Your task to perform on an android device: turn pop-ups off in chrome Image 0: 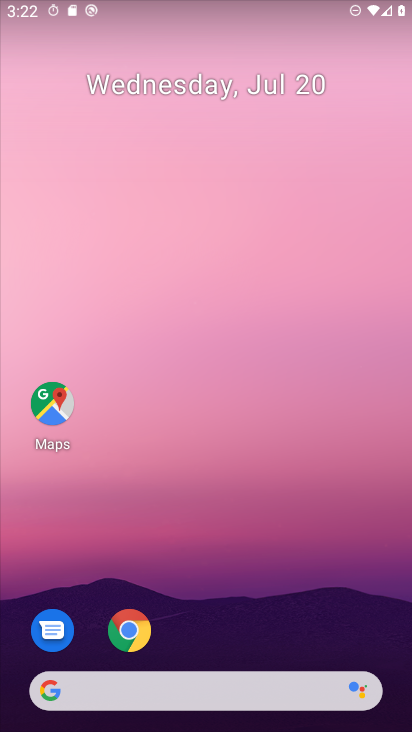
Step 0: drag from (252, 690) to (249, 252)
Your task to perform on an android device: turn pop-ups off in chrome Image 1: 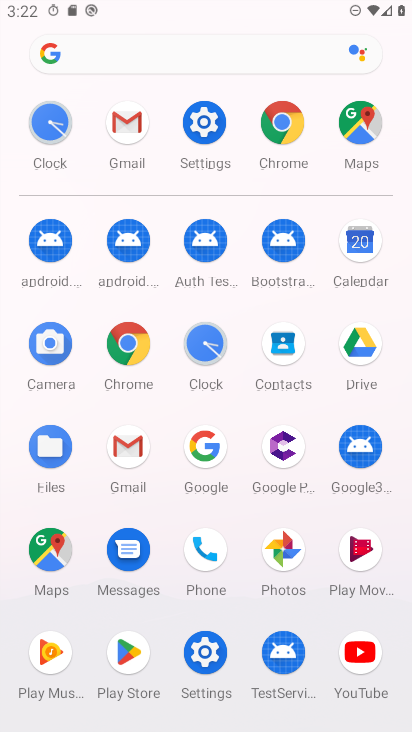
Step 1: click (299, 123)
Your task to perform on an android device: turn pop-ups off in chrome Image 2: 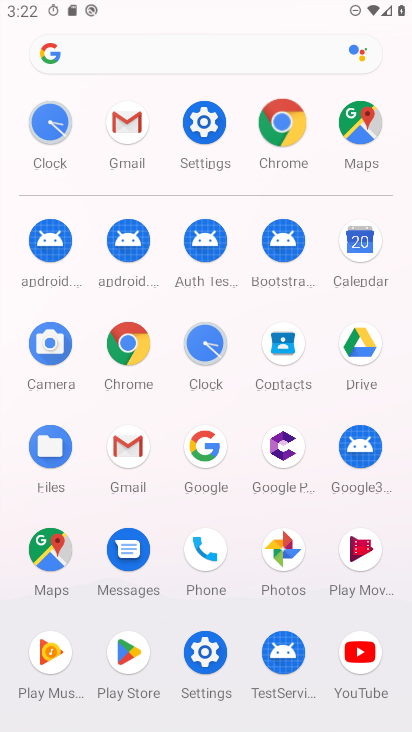
Step 2: click (290, 122)
Your task to perform on an android device: turn pop-ups off in chrome Image 3: 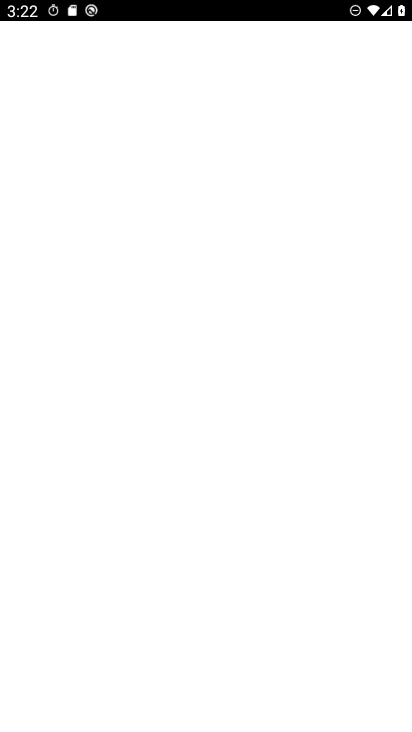
Step 3: click (290, 122)
Your task to perform on an android device: turn pop-ups off in chrome Image 4: 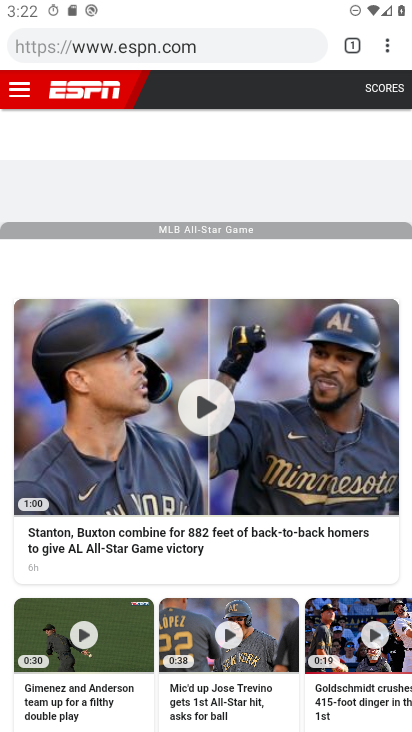
Step 4: drag from (390, 42) to (372, 140)
Your task to perform on an android device: turn pop-ups off in chrome Image 5: 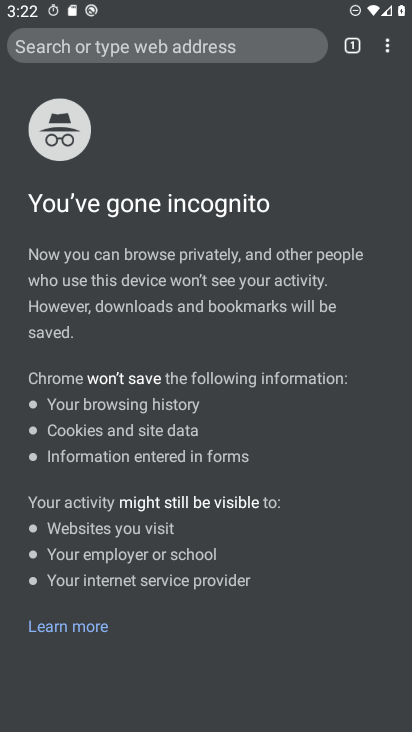
Step 5: click (385, 44)
Your task to perform on an android device: turn pop-ups off in chrome Image 6: 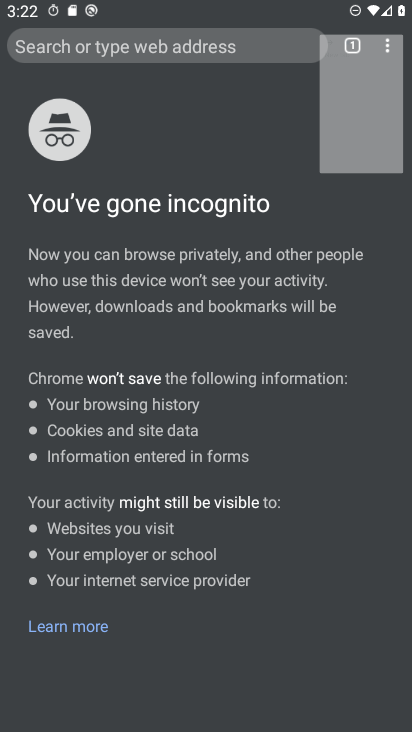
Step 6: click (384, 42)
Your task to perform on an android device: turn pop-ups off in chrome Image 7: 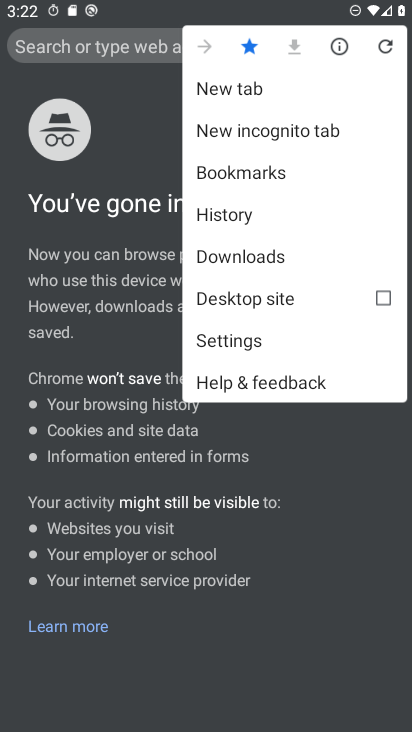
Step 7: click (223, 338)
Your task to perform on an android device: turn pop-ups off in chrome Image 8: 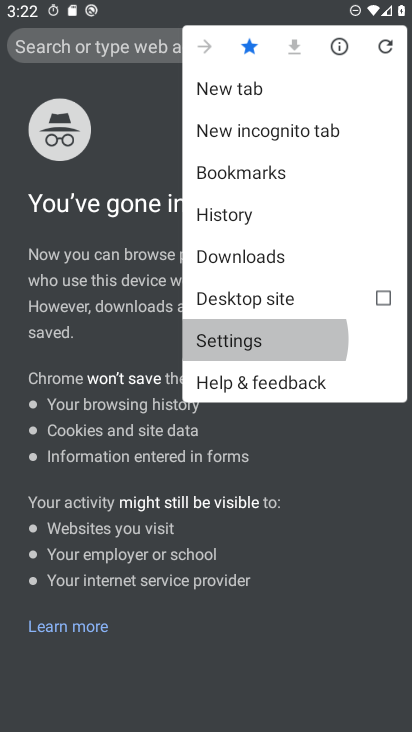
Step 8: click (223, 338)
Your task to perform on an android device: turn pop-ups off in chrome Image 9: 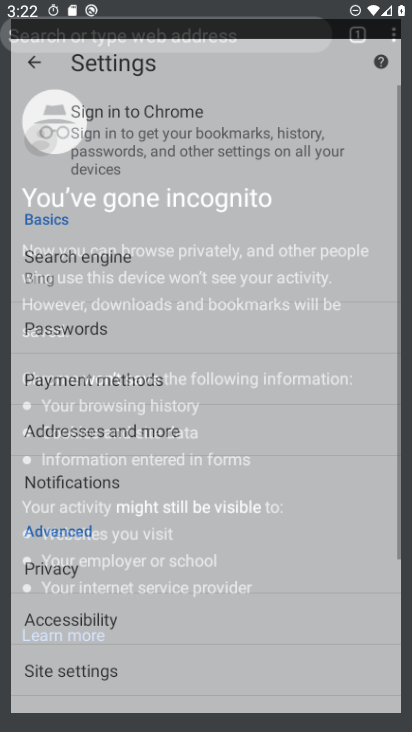
Step 9: click (240, 343)
Your task to perform on an android device: turn pop-ups off in chrome Image 10: 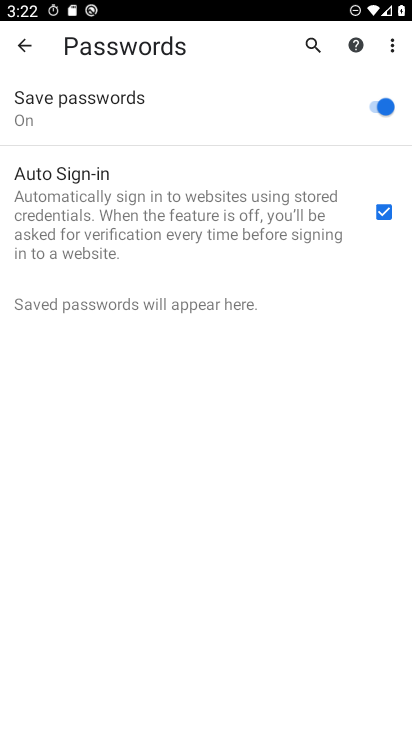
Step 10: click (25, 41)
Your task to perform on an android device: turn pop-ups off in chrome Image 11: 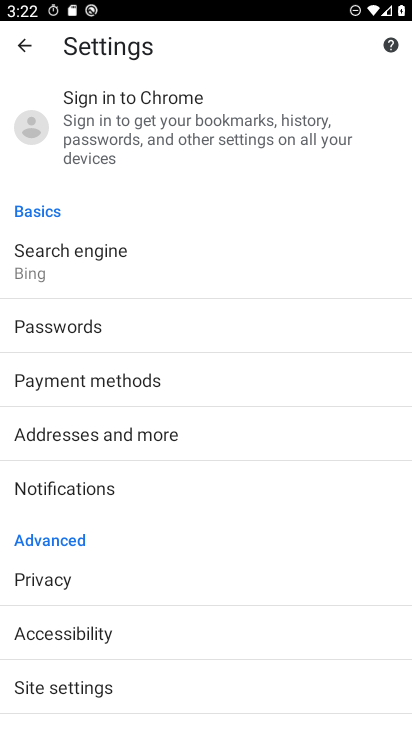
Step 11: drag from (133, 628) to (168, 266)
Your task to perform on an android device: turn pop-ups off in chrome Image 12: 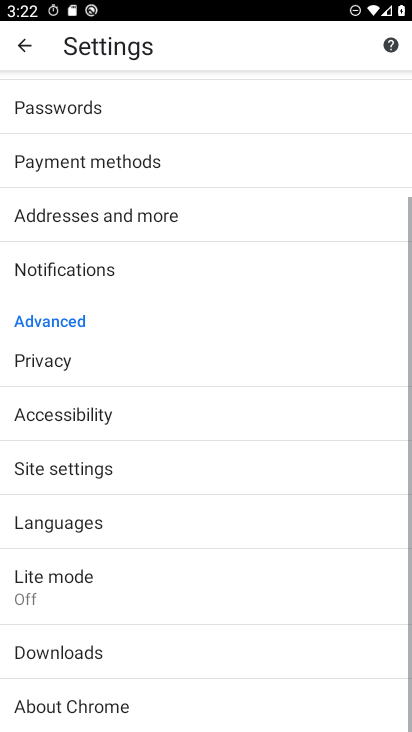
Step 12: drag from (202, 500) to (202, 404)
Your task to perform on an android device: turn pop-ups off in chrome Image 13: 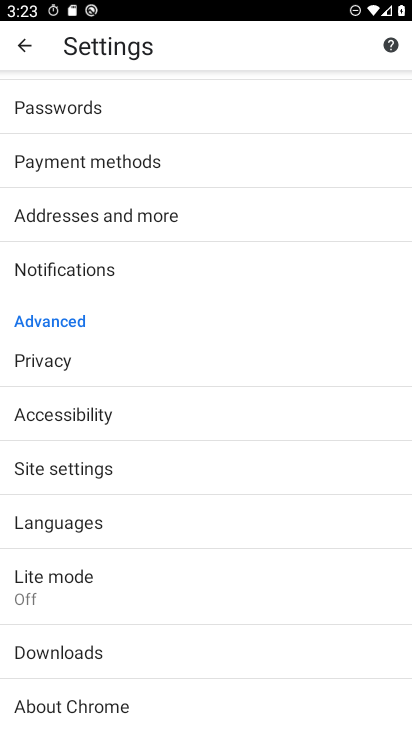
Step 13: click (75, 520)
Your task to perform on an android device: turn pop-ups off in chrome Image 14: 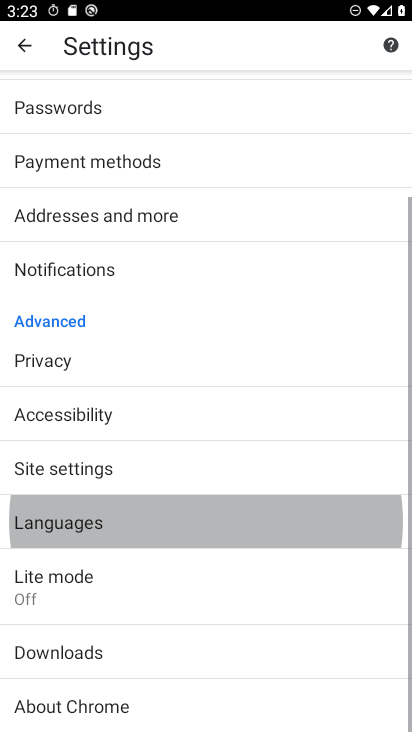
Step 14: click (75, 520)
Your task to perform on an android device: turn pop-ups off in chrome Image 15: 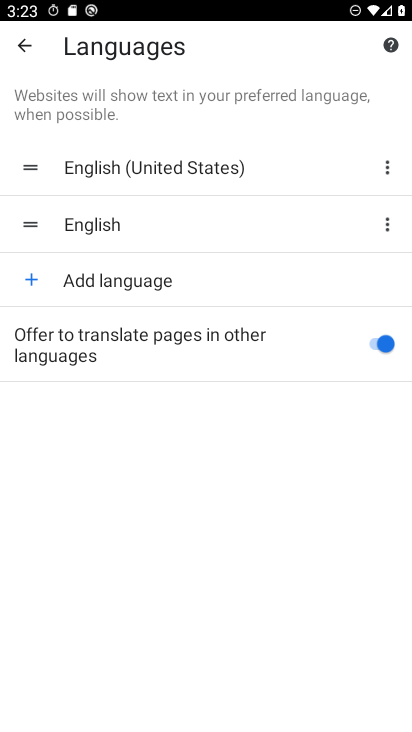
Step 15: click (383, 356)
Your task to perform on an android device: turn pop-ups off in chrome Image 16: 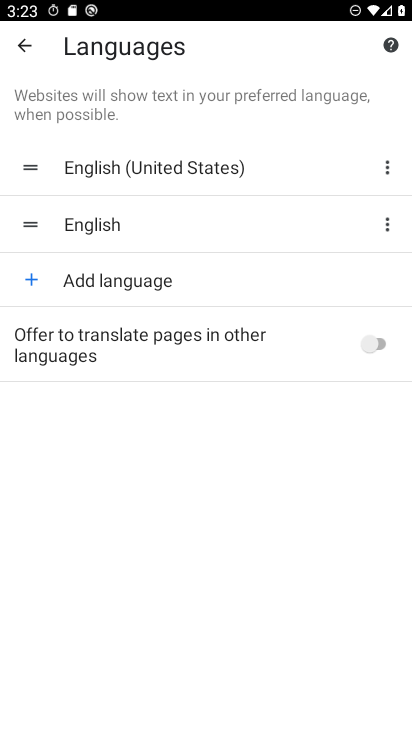
Step 16: task complete